Your task to perform on an android device: Go to Android settings Image 0: 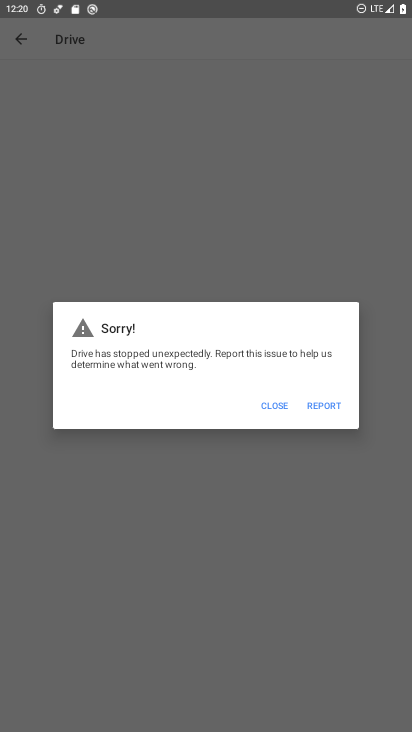
Step 0: press home button
Your task to perform on an android device: Go to Android settings Image 1: 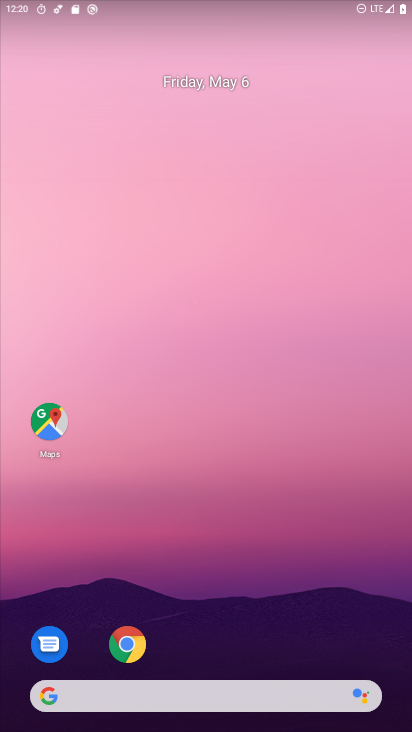
Step 1: drag from (351, 621) to (366, 76)
Your task to perform on an android device: Go to Android settings Image 2: 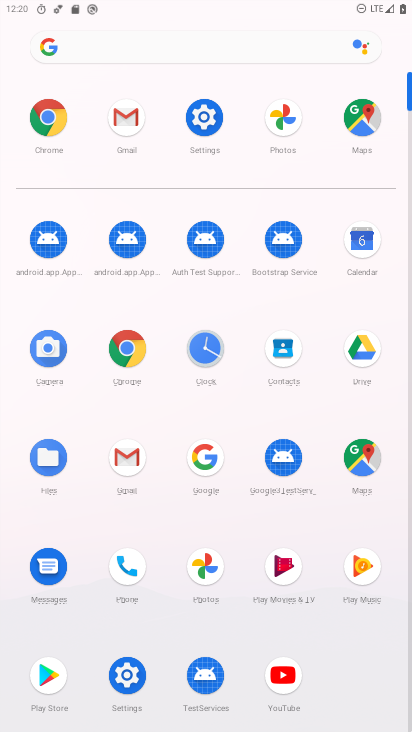
Step 2: click (141, 666)
Your task to perform on an android device: Go to Android settings Image 3: 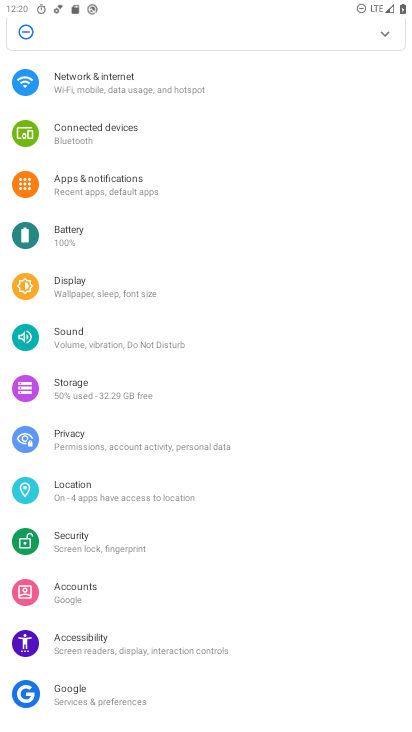
Step 3: task complete